Your task to perform on an android device: check battery use Image 0: 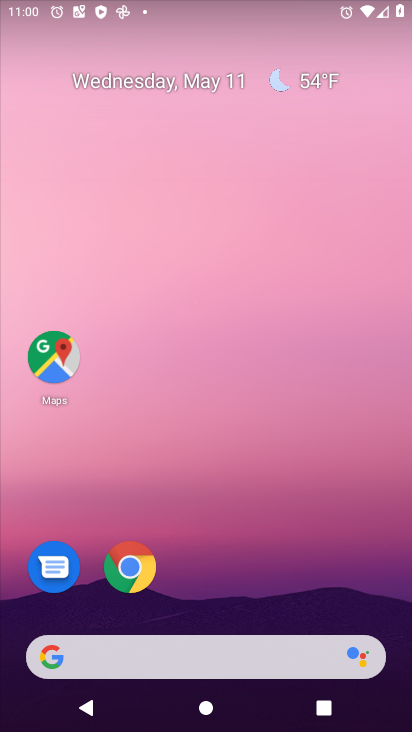
Step 0: click (227, 655)
Your task to perform on an android device: check battery use Image 1: 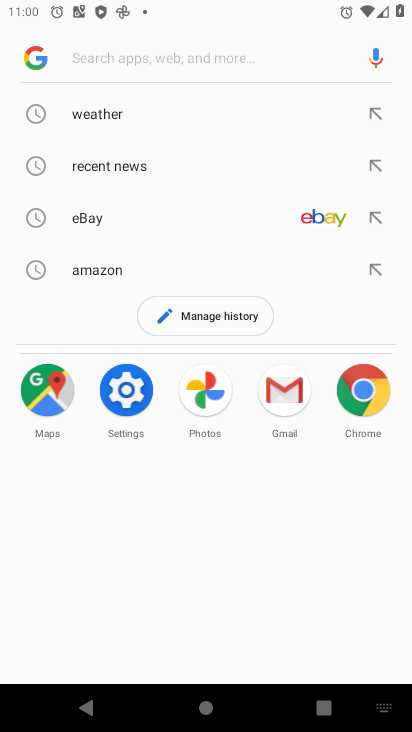
Step 1: click (120, 98)
Your task to perform on an android device: check battery use Image 2: 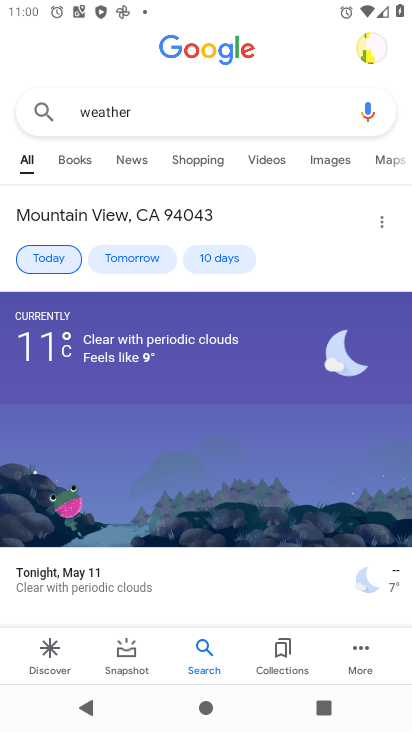
Step 2: drag from (211, 470) to (261, 141)
Your task to perform on an android device: check battery use Image 3: 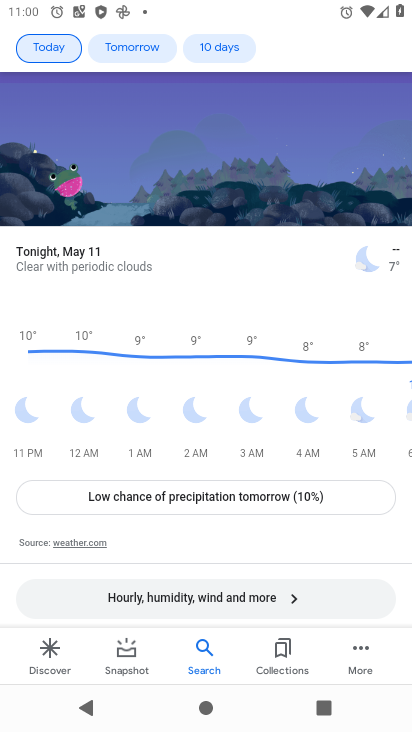
Step 3: press home button
Your task to perform on an android device: check battery use Image 4: 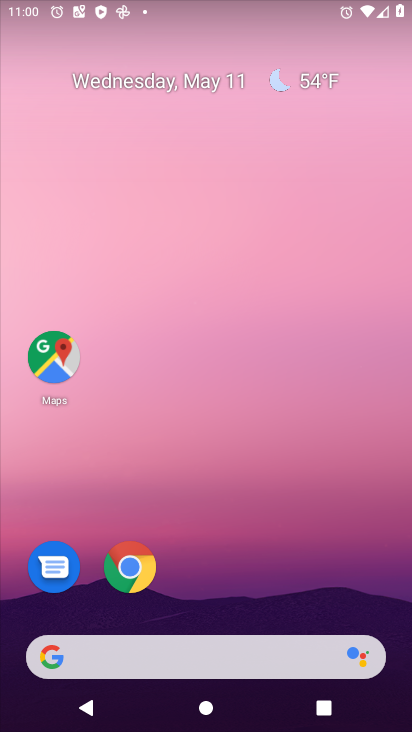
Step 4: drag from (251, 526) to (288, 2)
Your task to perform on an android device: check battery use Image 5: 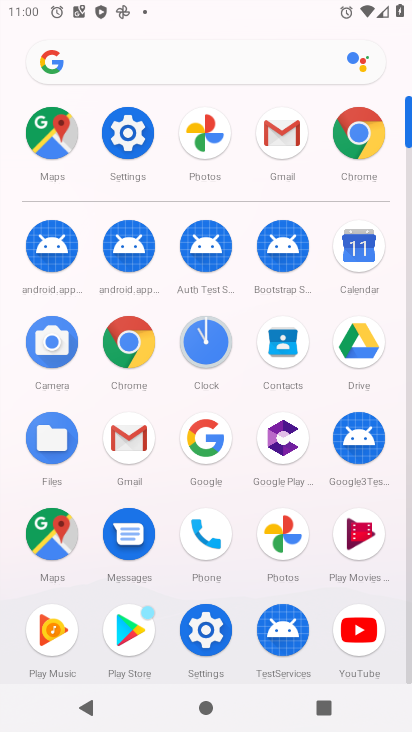
Step 5: click (119, 131)
Your task to perform on an android device: check battery use Image 6: 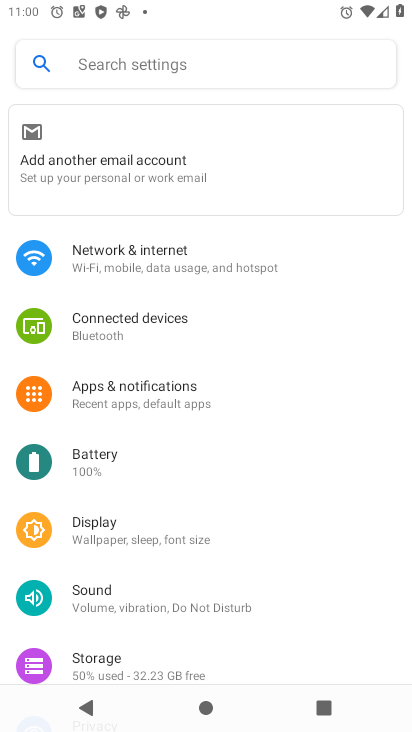
Step 6: click (136, 464)
Your task to perform on an android device: check battery use Image 7: 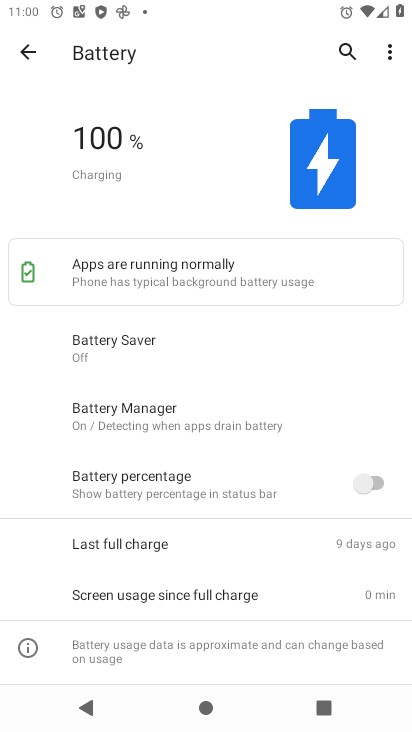
Step 7: click (385, 63)
Your task to perform on an android device: check battery use Image 8: 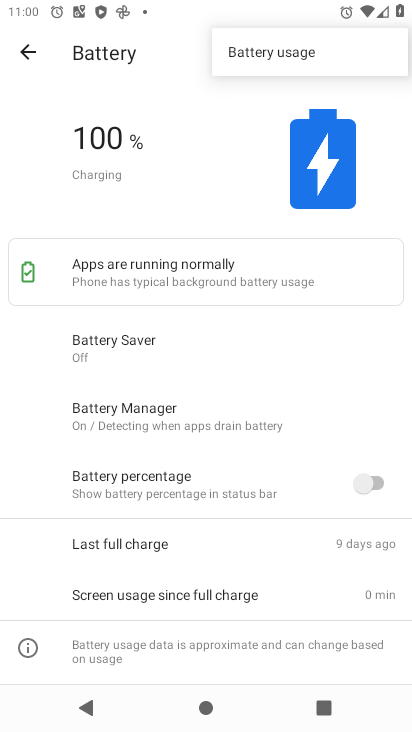
Step 8: click (242, 49)
Your task to perform on an android device: check battery use Image 9: 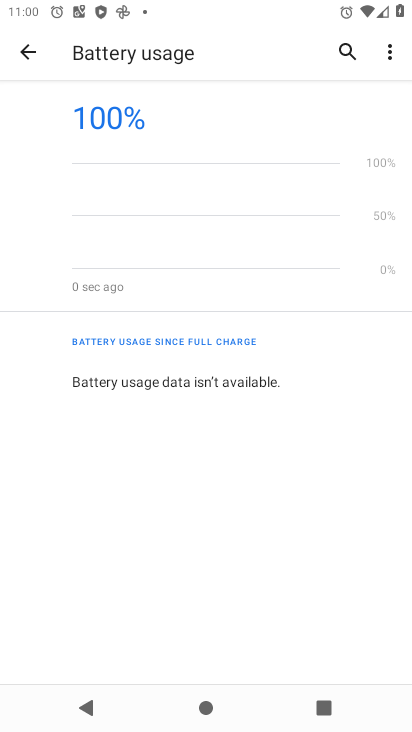
Step 9: task complete